Your task to perform on an android device: Open calendar and show me the fourth week of next month Image 0: 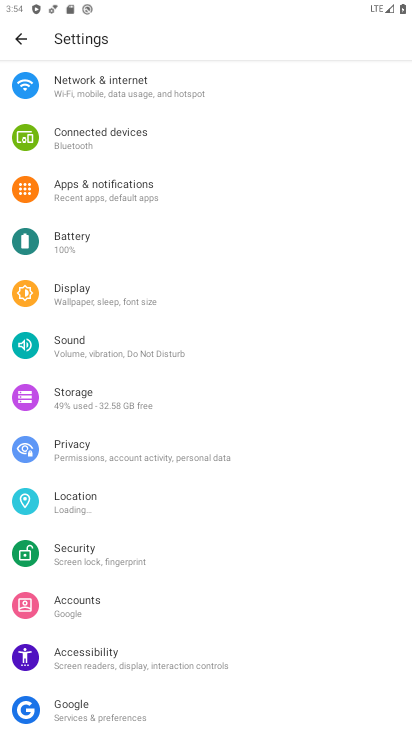
Step 0: press home button
Your task to perform on an android device: Open calendar and show me the fourth week of next month Image 1: 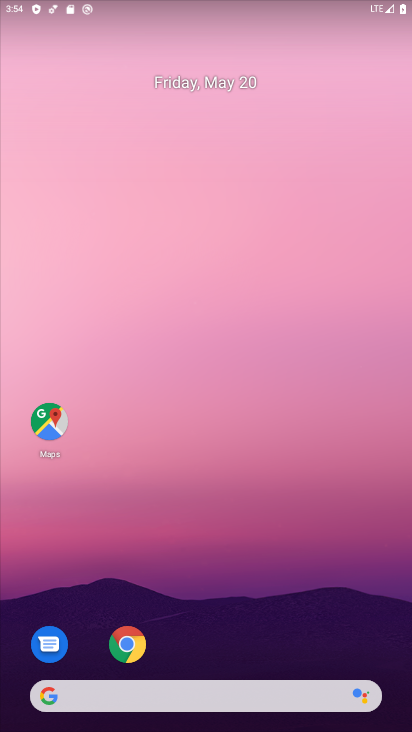
Step 1: drag from (229, 723) to (239, 259)
Your task to perform on an android device: Open calendar and show me the fourth week of next month Image 2: 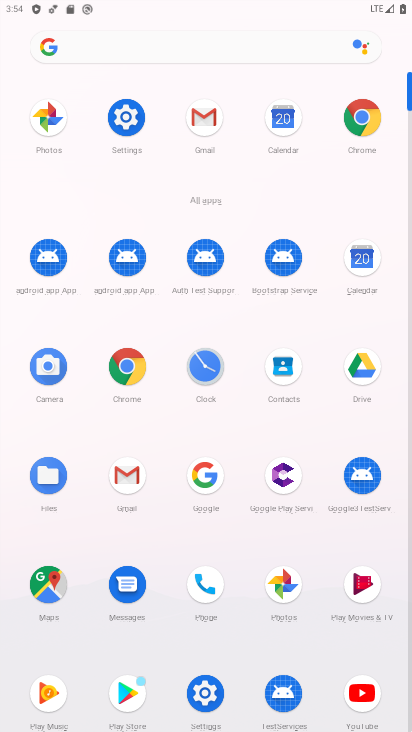
Step 2: click (372, 283)
Your task to perform on an android device: Open calendar and show me the fourth week of next month Image 3: 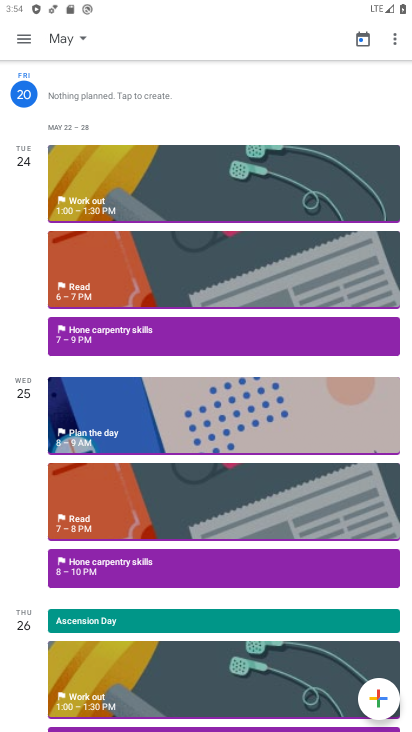
Step 3: click (26, 41)
Your task to perform on an android device: Open calendar and show me the fourth week of next month Image 4: 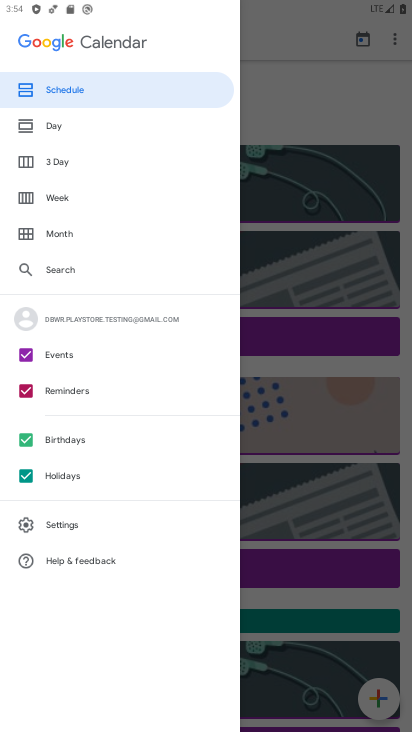
Step 4: click (65, 238)
Your task to perform on an android device: Open calendar and show me the fourth week of next month Image 5: 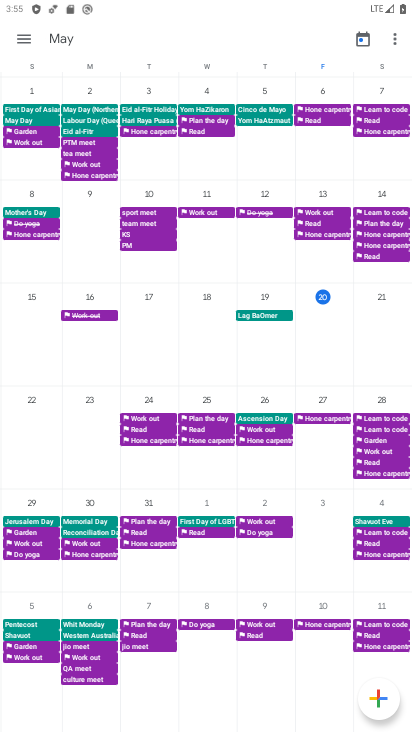
Step 5: drag from (145, 339) to (3, 367)
Your task to perform on an android device: Open calendar and show me the fourth week of next month Image 6: 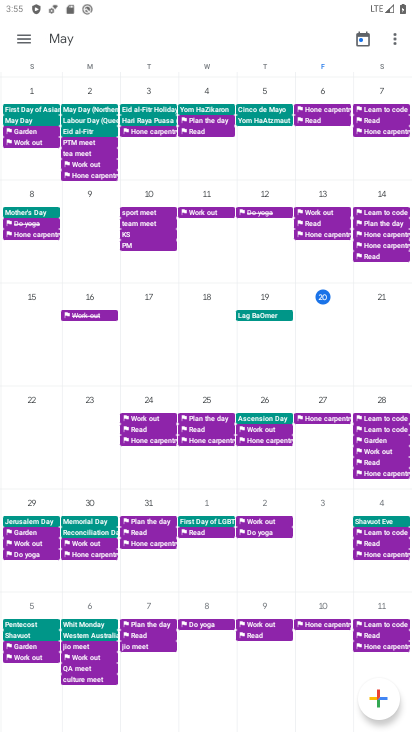
Step 6: drag from (390, 494) to (5, 434)
Your task to perform on an android device: Open calendar and show me the fourth week of next month Image 7: 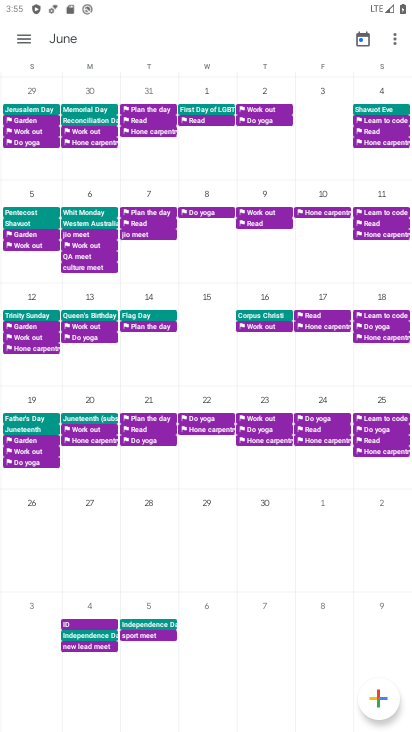
Step 7: click (88, 515)
Your task to perform on an android device: Open calendar and show me the fourth week of next month Image 8: 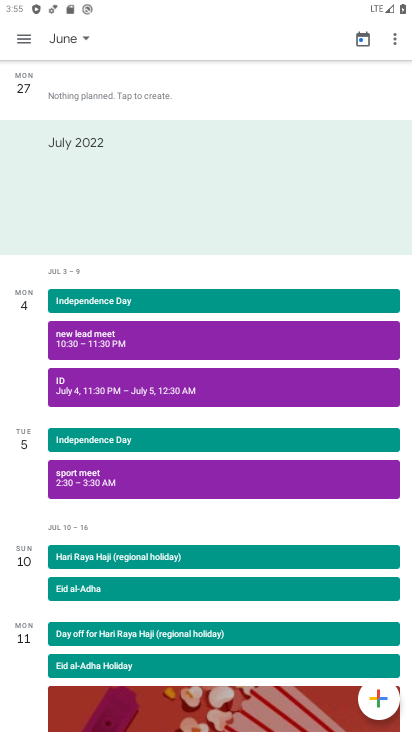
Step 8: task complete